Your task to perform on an android device: open app "TextNow: Call + Text Unlimited" Image 0: 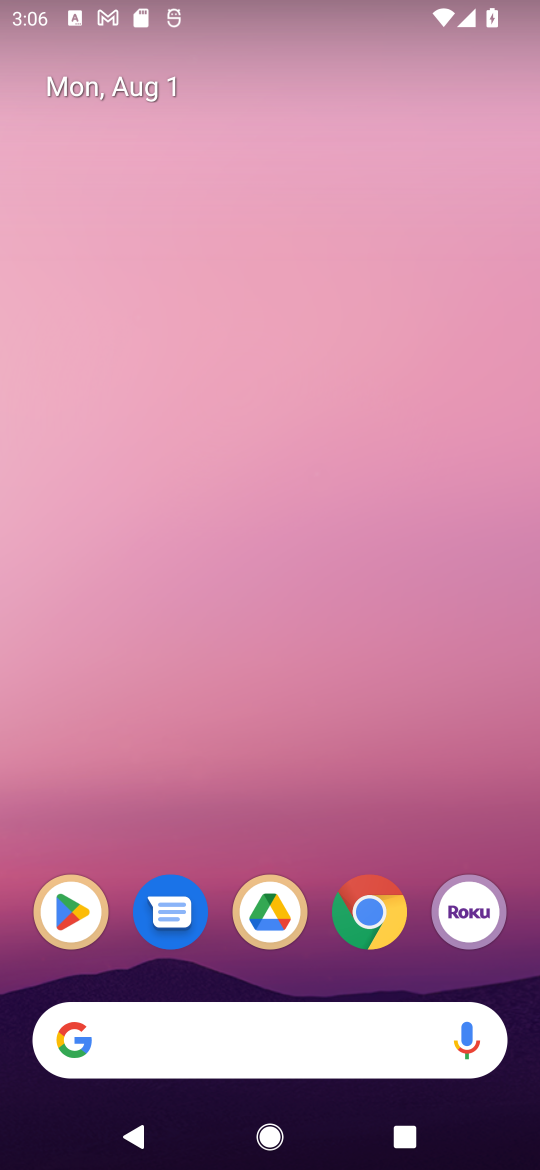
Step 0: click (64, 924)
Your task to perform on an android device: open app "TextNow: Call + Text Unlimited" Image 1: 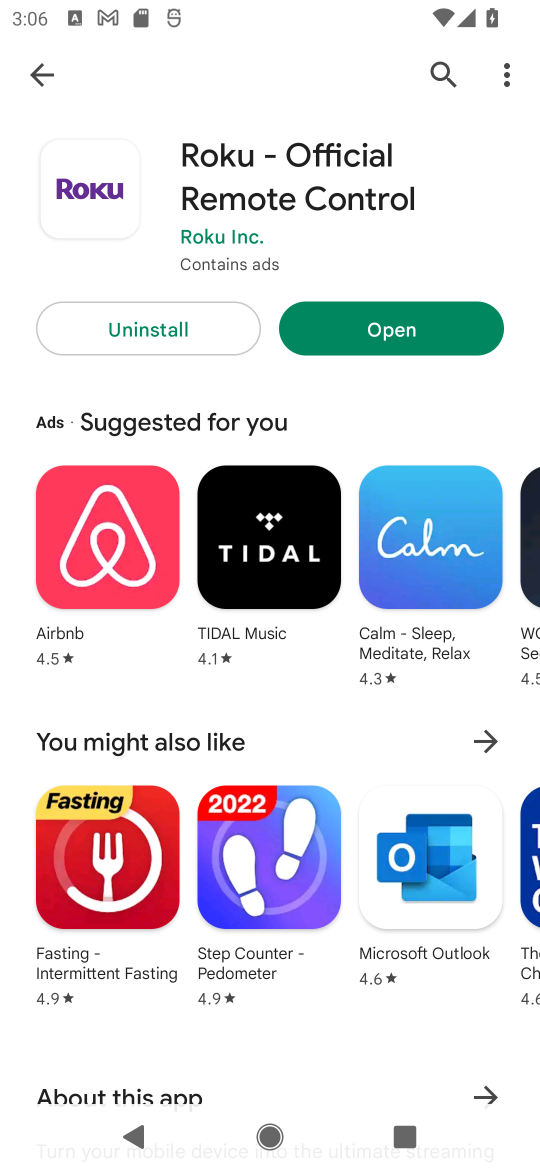
Step 1: click (438, 67)
Your task to perform on an android device: open app "TextNow: Call + Text Unlimited" Image 2: 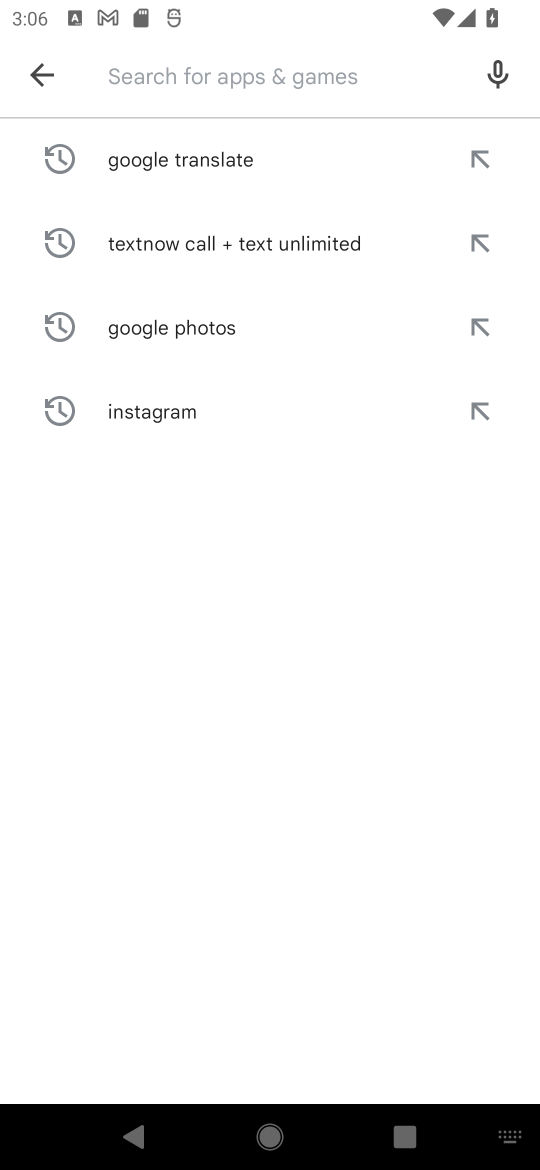
Step 2: type "TextNow: Call + Text Unlimited"
Your task to perform on an android device: open app "TextNow: Call + Text Unlimited" Image 3: 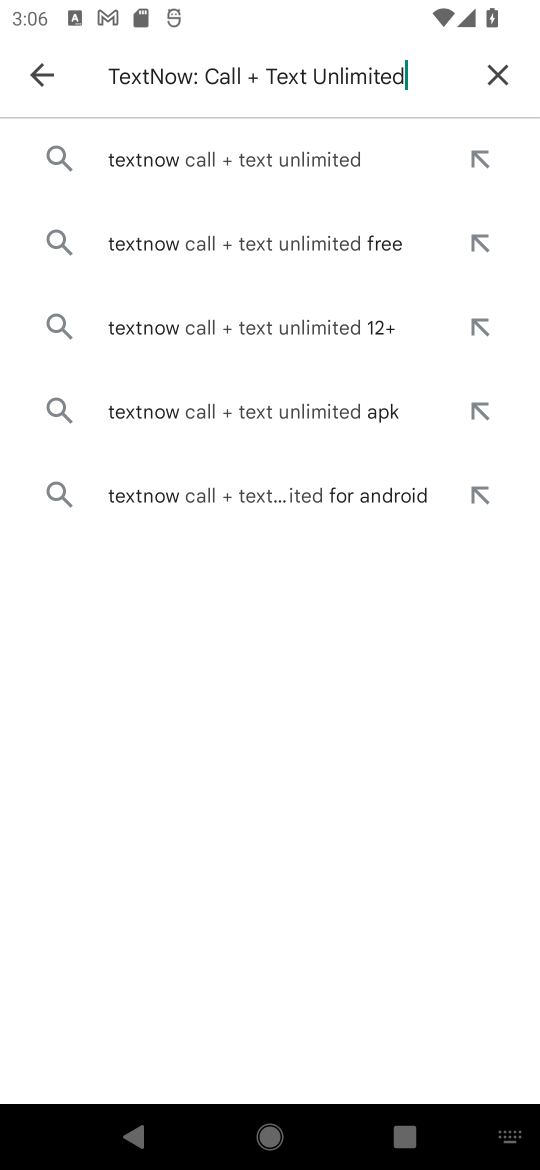
Step 3: click (214, 158)
Your task to perform on an android device: open app "TextNow: Call + Text Unlimited" Image 4: 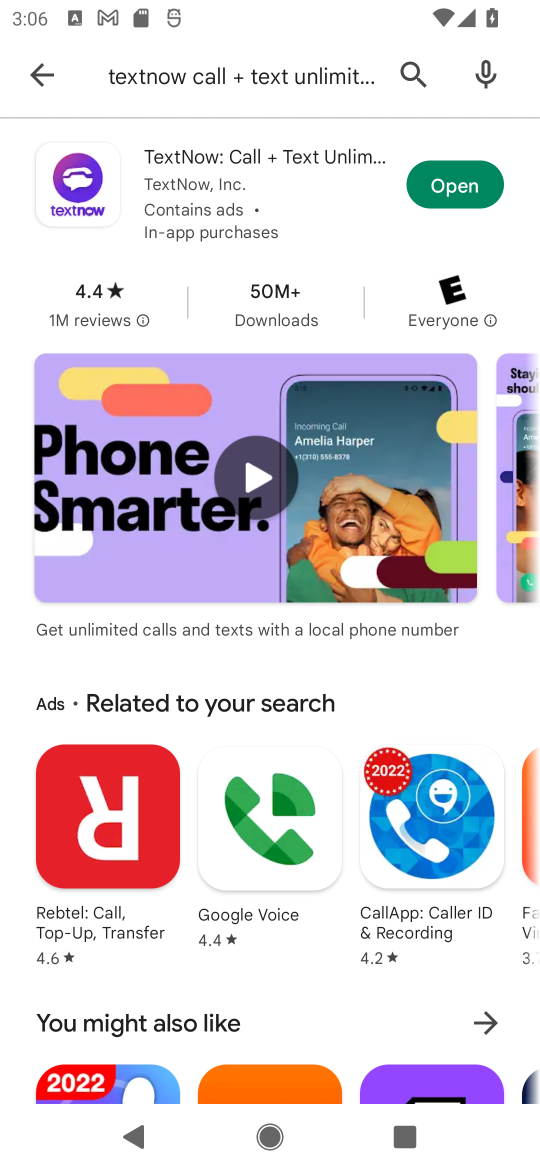
Step 4: click (456, 197)
Your task to perform on an android device: open app "TextNow: Call + Text Unlimited" Image 5: 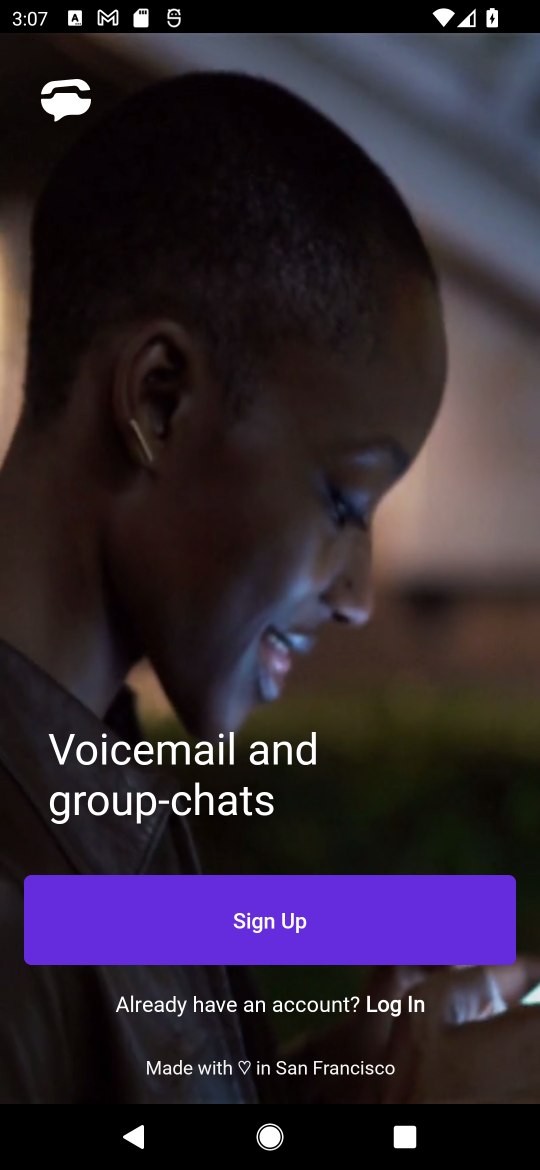
Step 5: task complete